Your task to perform on an android device: turn on bluetooth scan Image 0: 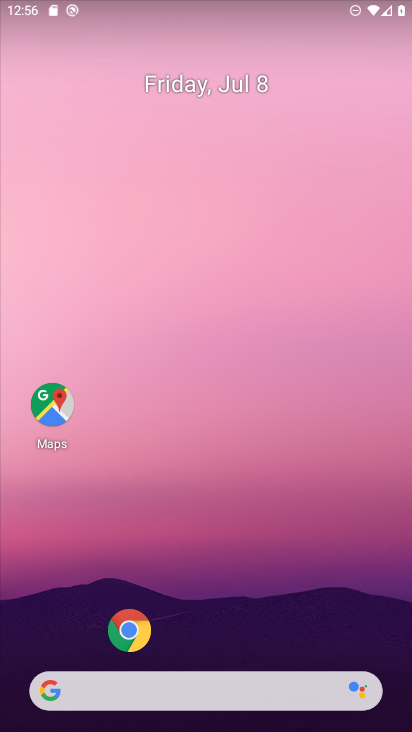
Step 0: drag from (234, 704) to (335, 29)
Your task to perform on an android device: turn on bluetooth scan Image 1: 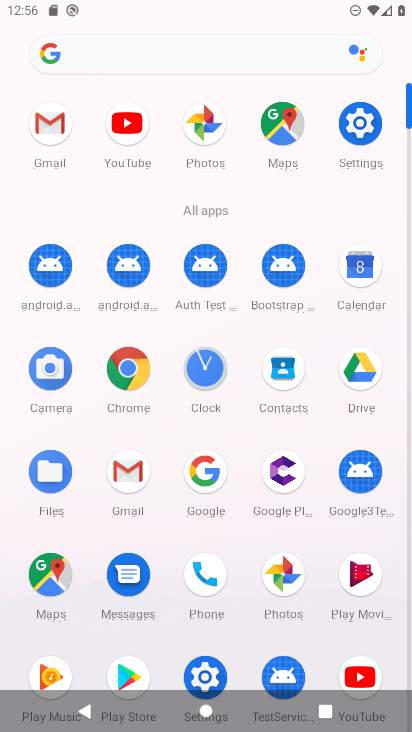
Step 1: click (345, 127)
Your task to perform on an android device: turn on bluetooth scan Image 2: 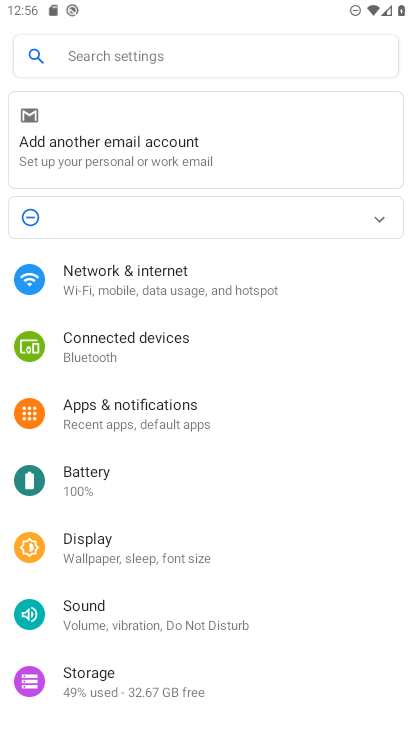
Step 2: drag from (122, 652) to (177, 315)
Your task to perform on an android device: turn on bluetooth scan Image 3: 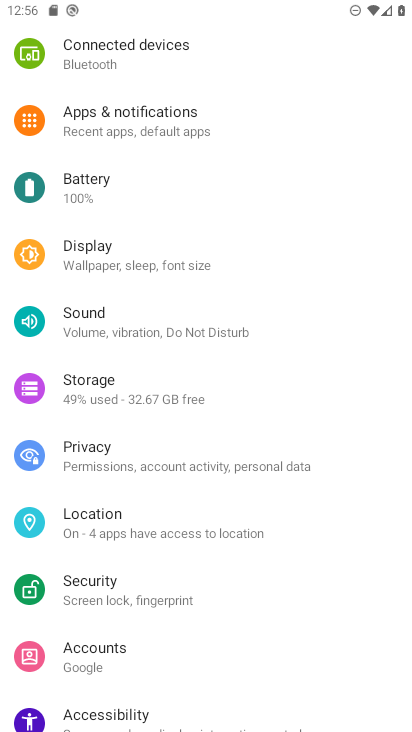
Step 3: click (173, 544)
Your task to perform on an android device: turn on bluetooth scan Image 4: 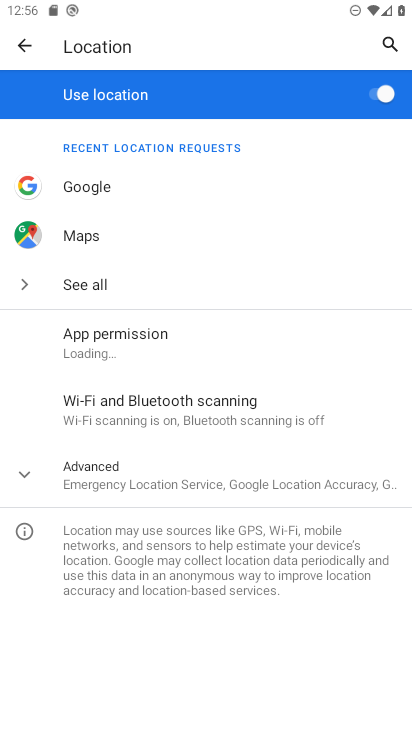
Step 4: click (200, 422)
Your task to perform on an android device: turn on bluetooth scan Image 5: 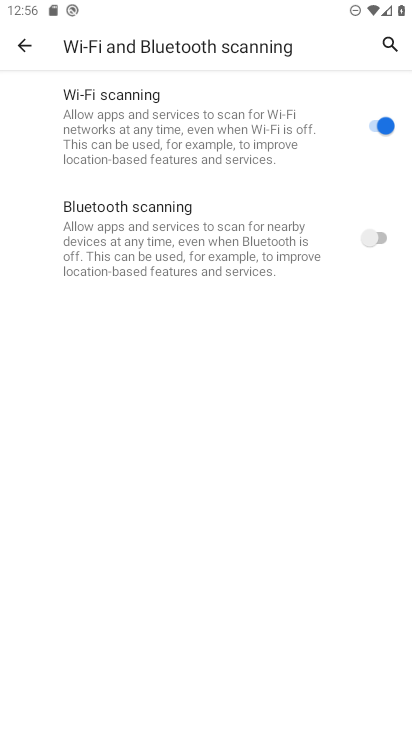
Step 5: click (378, 243)
Your task to perform on an android device: turn on bluetooth scan Image 6: 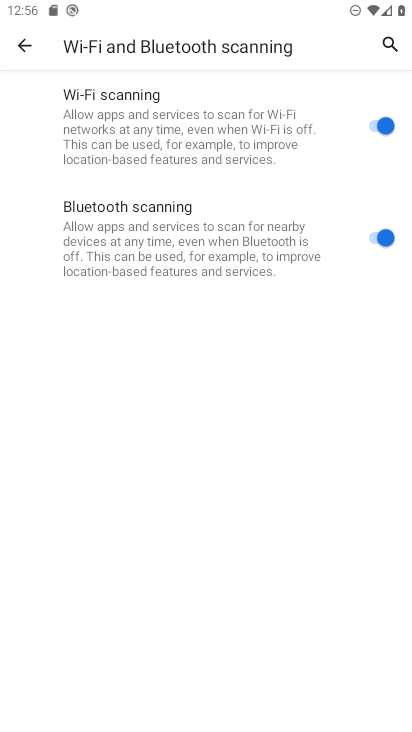
Step 6: task complete